Your task to perform on an android device: turn on notifications settings in the gmail app Image 0: 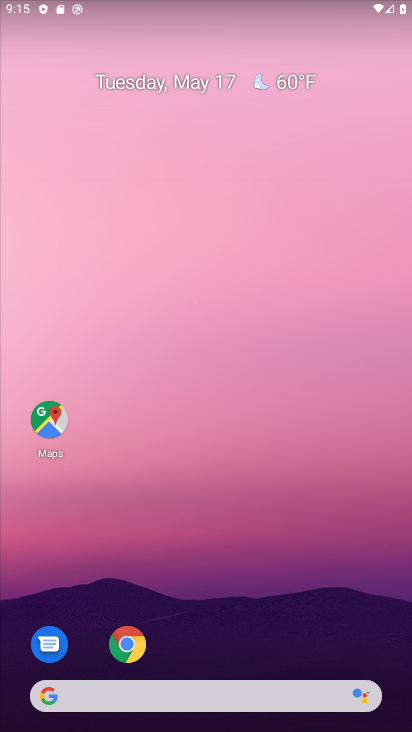
Step 0: drag from (222, 647) to (248, 121)
Your task to perform on an android device: turn on notifications settings in the gmail app Image 1: 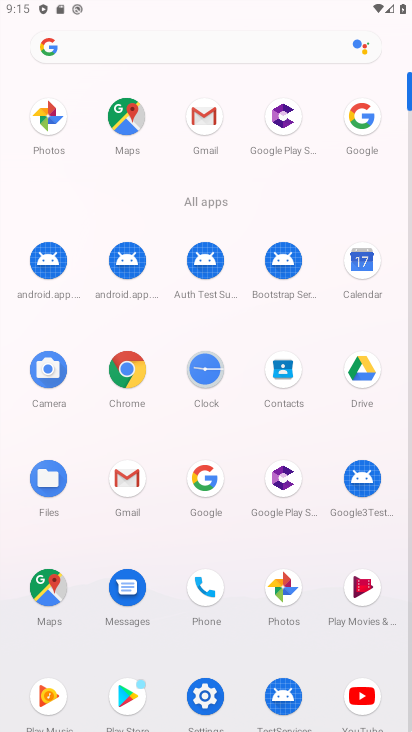
Step 1: click (126, 482)
Your task to perform on an android device: turn on notifications settings in the gmail app Image 2: 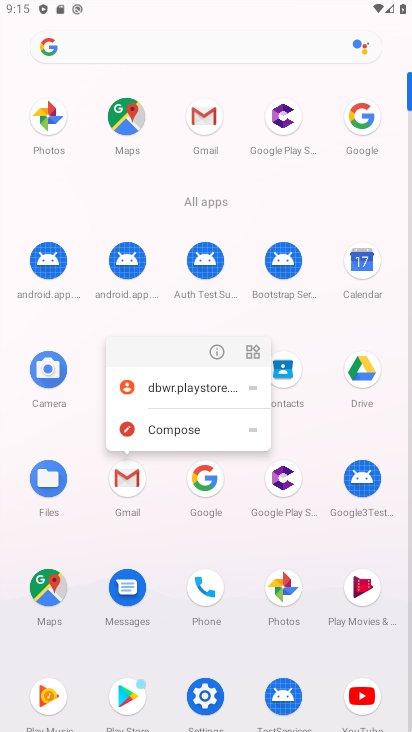
Step 2: click (130, 482)
Your task to perform on an android device: turn on notifications settings in the gmail app Image 3: 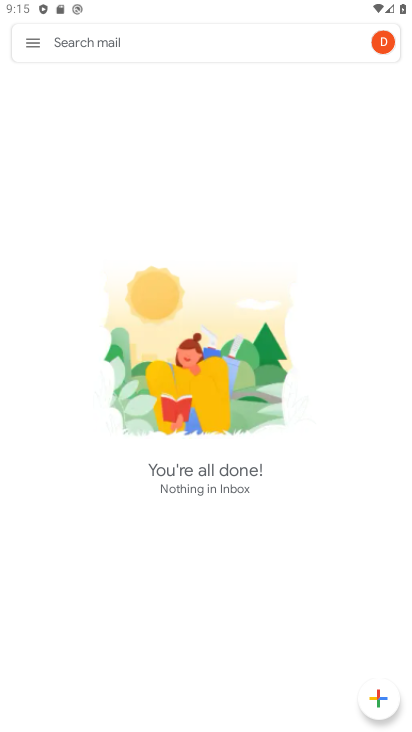
Step 3: click (29, 35)
Your task to perform on an android device: turn on notifications settings in the gmail app Image 4: 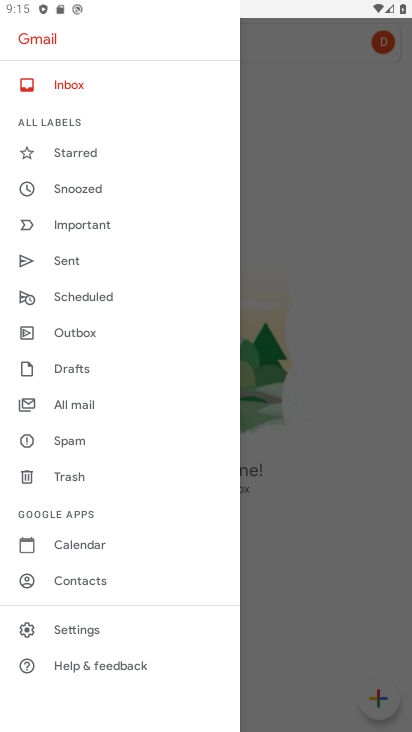
Step 4: click (104, 627)
Your task to perform on an android device: turn on notifications settings in the gmail app Image 5: 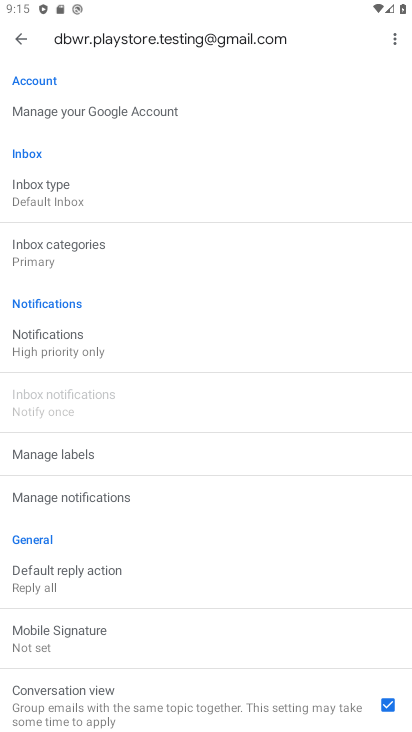
Step 5: click (66, 346)
Your task to perform on an android device: turn on notifications settings in the gmail app Image 6: 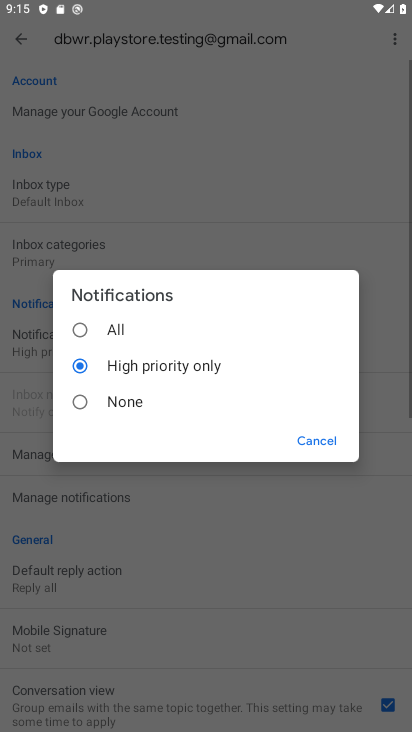
Step 6: click (139, 324)
Your task to perform on an android device: turn on notifications settings in the gmail app Image 7: 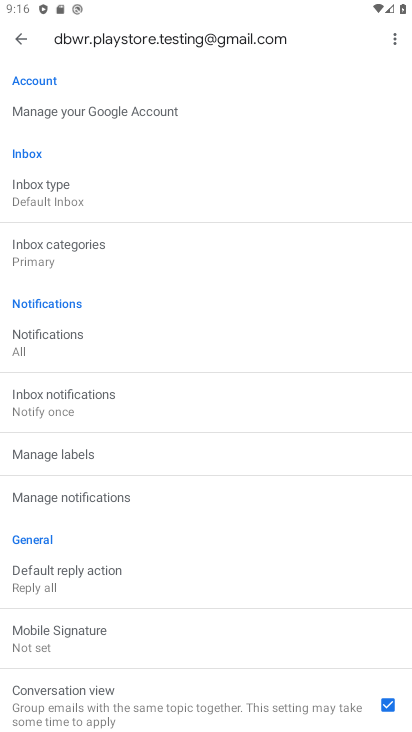
Step 7: task complete